Your task to perform on an android device: find photos in the google photos app Image 0: 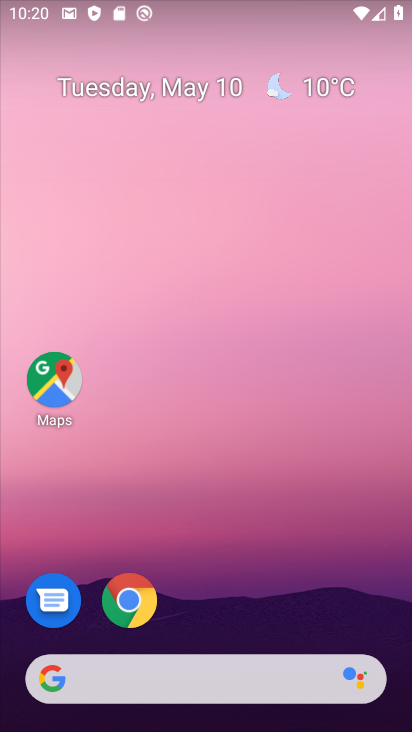
Step 0: drag from (250, 439) to (193, 23)
Your task to perform on an android device: find photos in the google photos app Image 1: 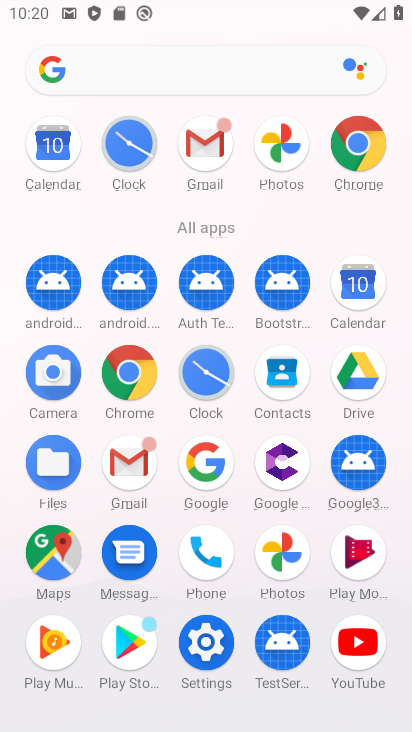
Step 1: drag from (19, 595) to (14, 247)
Your task to perform on an android device: find photos in the google photos app Image 2: 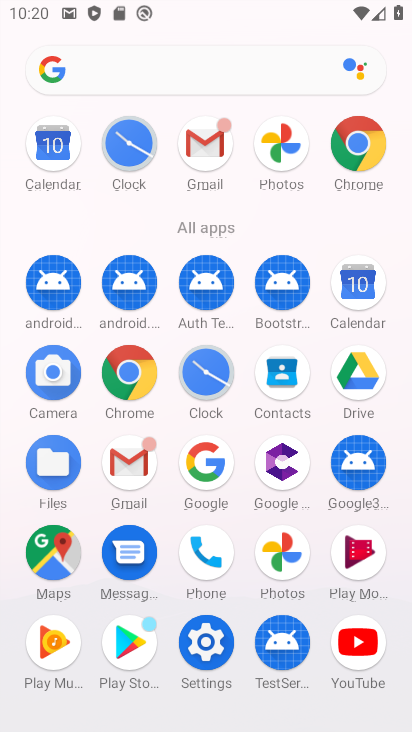
Step 2: click (283, 546)
Your task to perform on an android device: find photos in the google photos app Image 3: 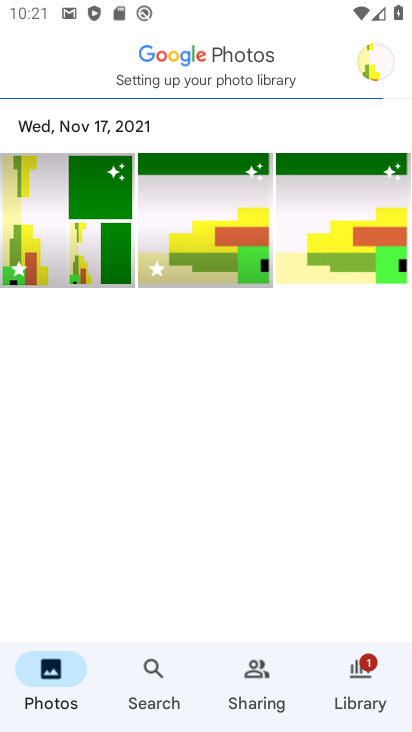
Step 3: task complete